Your task to perform on an android device: Go to display settings Image 0: 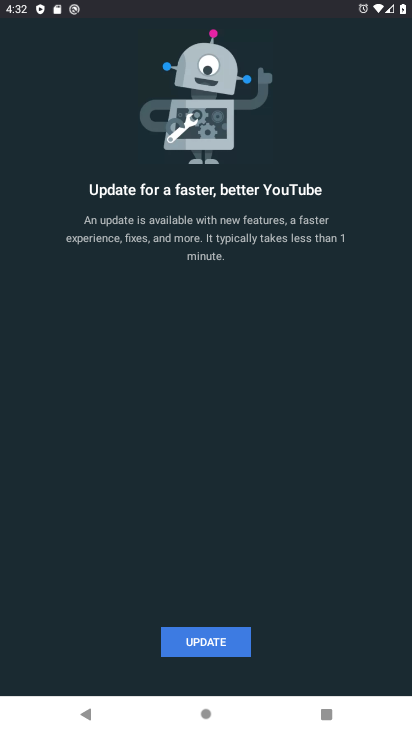
Step 0: click (87, 718)
Your task to perform on an android device: Go to display settings Image 1: 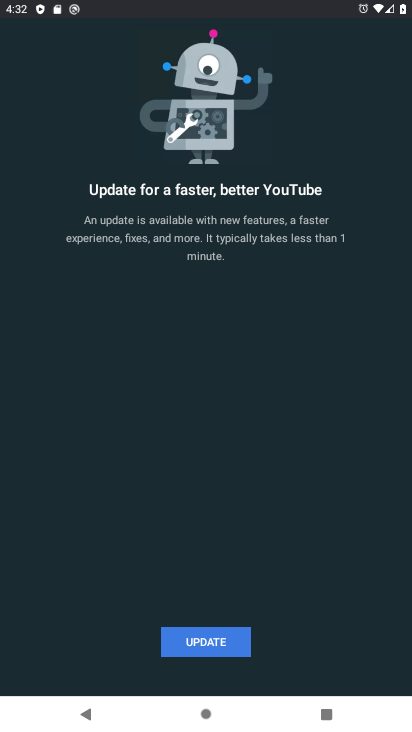
Step 1: click (207, 717)
Your task to perform on an android device: Go to display settings Image 2: 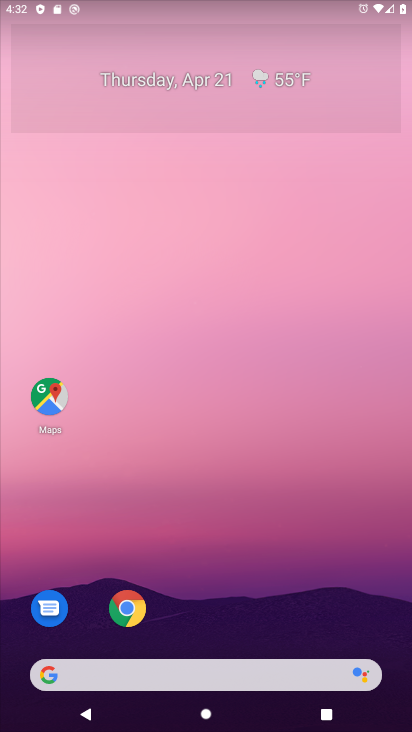
Step 2: drag from (242, 579) to (301, 38)
Your task to perform on an android device: Go to display settings Image 3: 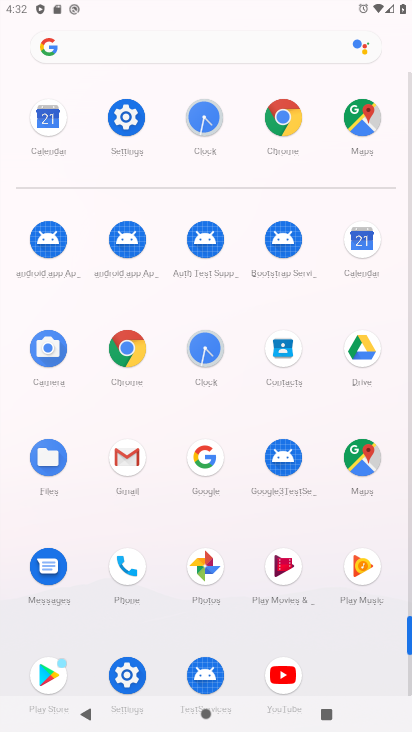
Step 3: click (122, 127)
Your task to perform on an android device: Go to display settings Image 4: 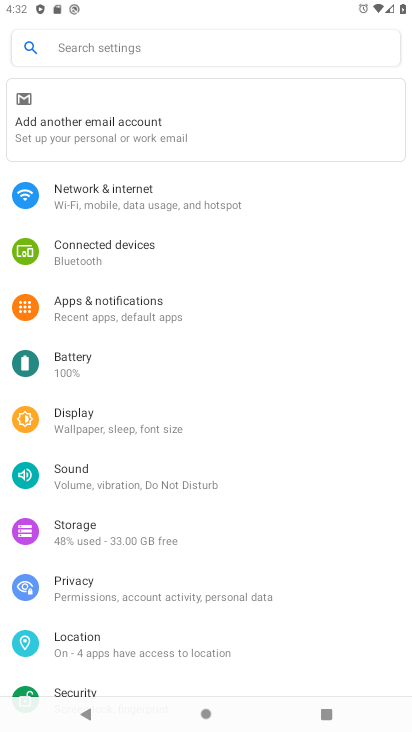
Step 4: click (146, 437)
Your task to perform on an android device: Go to display settings Image 5: 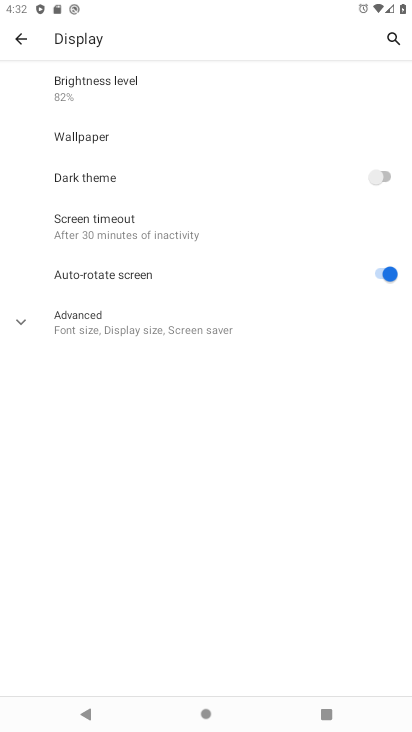
Step 5: task complete